Your task to perform on an android device: Open Youtube and go to the subscriptions tab Image 0: 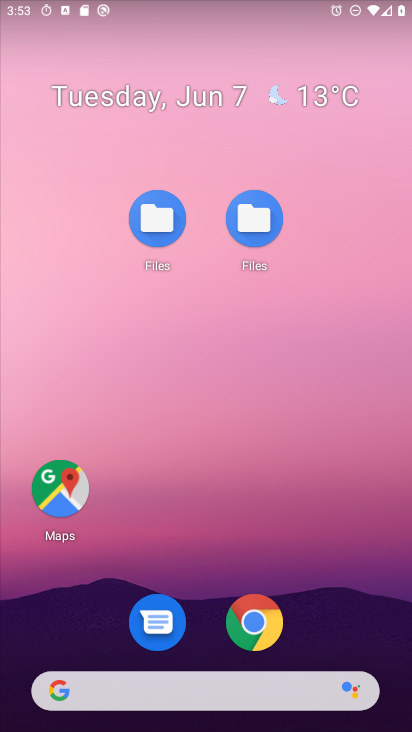
Step 0: drag from (330, 612) to (351, 77)
Your task to perform on an android device: Open Youtube and go to the subscriptions tab Image 1: 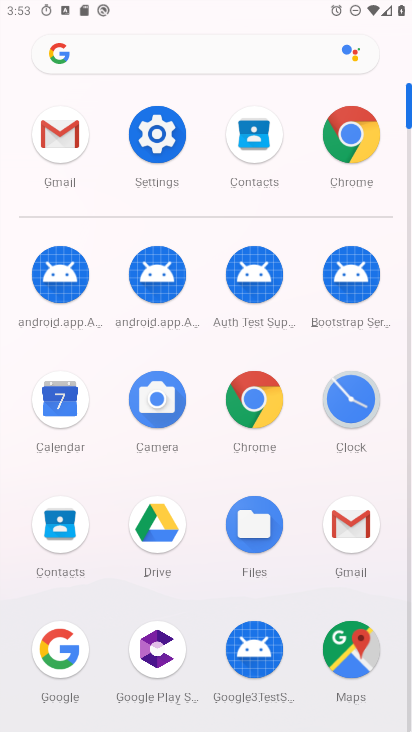
Step 1: click (403, 347)
Your task to perform on an android device: Open Youtube and go to the subscriptions tab Image 2: 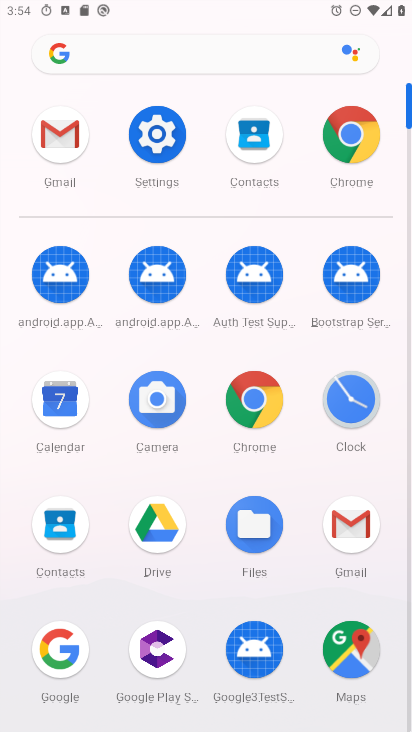
Step 2: click (409, 354)
Your task to perform on an android device: Open Youtube and go to the subscriptions tab Image 3: 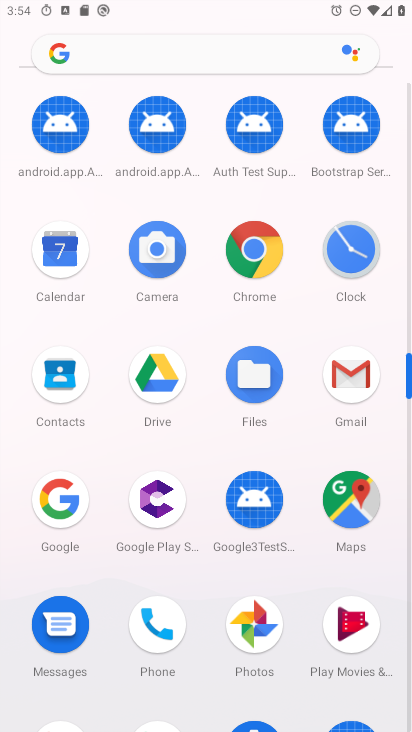
Step 3: click (405, 492)
Your task to perform on an android device: Open Youtube and go to the subscriptions tab Image 4: 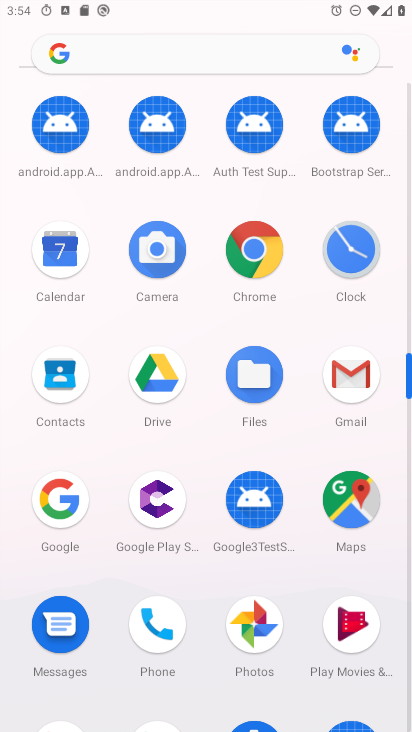
Step 4: click (405, 492)
Your task to perform on an android device: Open Youtube and go to the subscriptions tab Image 5: 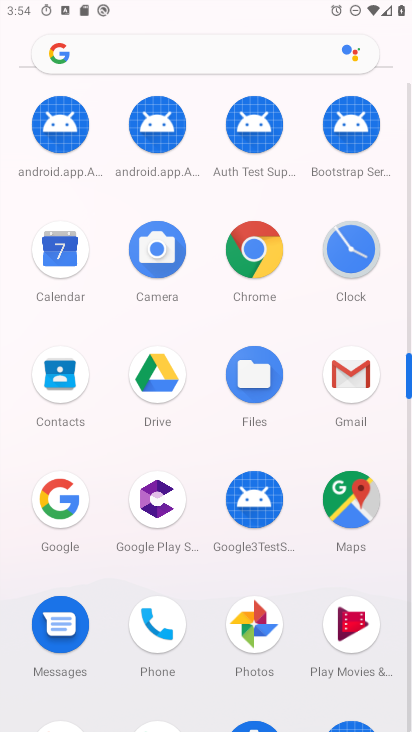
Step 5: click (405, 492)
Your task to perform on an android device: Open Youtube and go to the subscriptions tab Image 6: 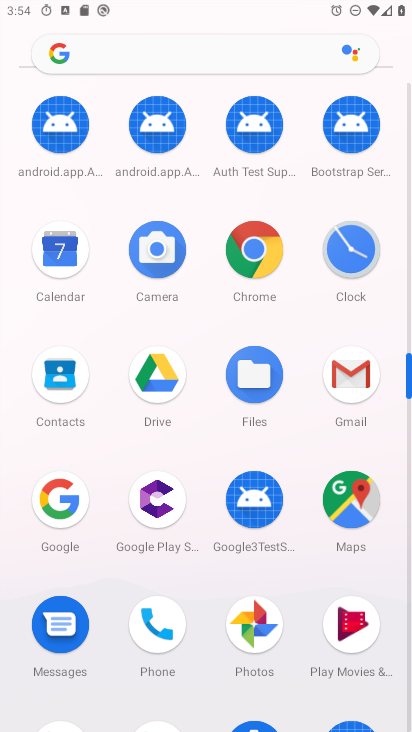
Step 6: click (405, 492)
Your task to perform on an android device: Open Youtube and go to the subscriptions tab Image 7: 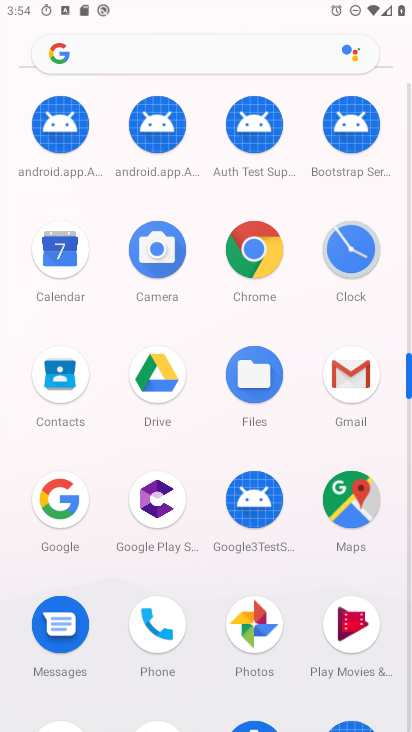
Step 7: click (406, 497)
Your task to perform on an android device: Open Youtube and go to the subscriptions tab Image 8: 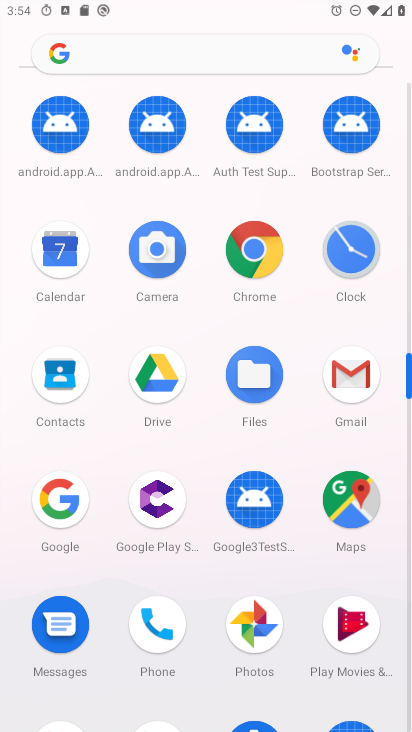
Step 8: click (406, 497)
Your task to perform on an android device: Open Youtube and go to the subscriptions tab Image 9: 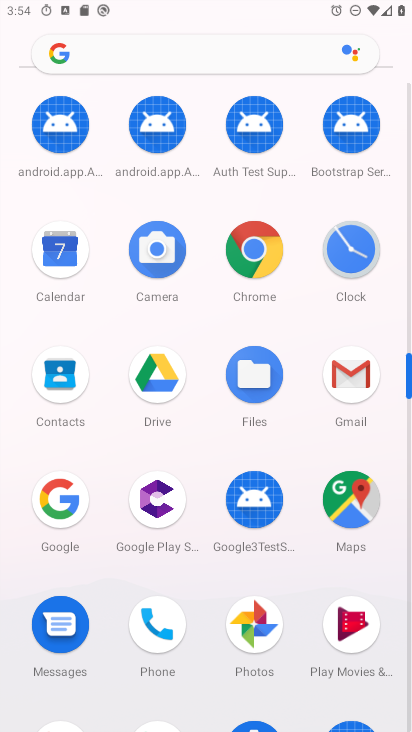
Step 9: drag from (404, 651) to (410, 437)
Your task to perform on an android device: Open Youtube and go to the subscriptions tab Image 10: 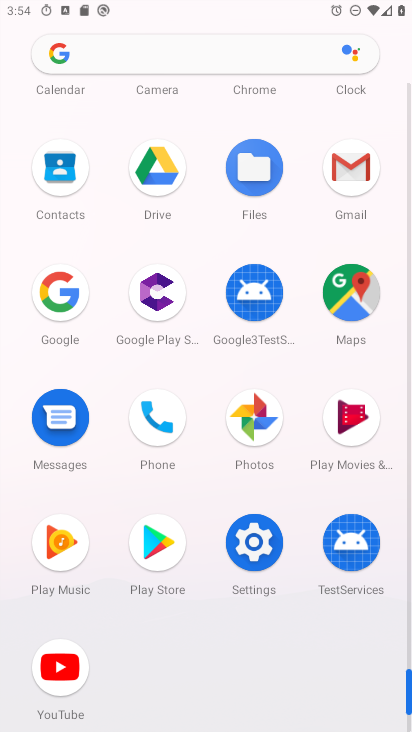
Step 10: click (61, 667)
Your task to perform on an android device: Open Youtube and go to the subscriptions tab Image 11: 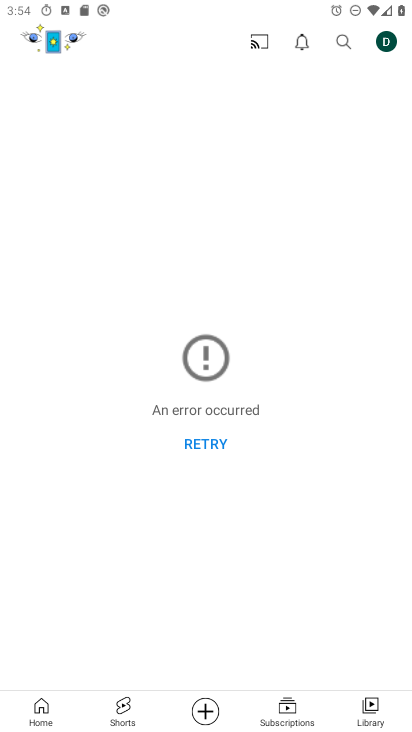
Step 11: click (291, 710)
Your task to perform on an android device: Open Youtube and go to the subscriptions tab Image 12: 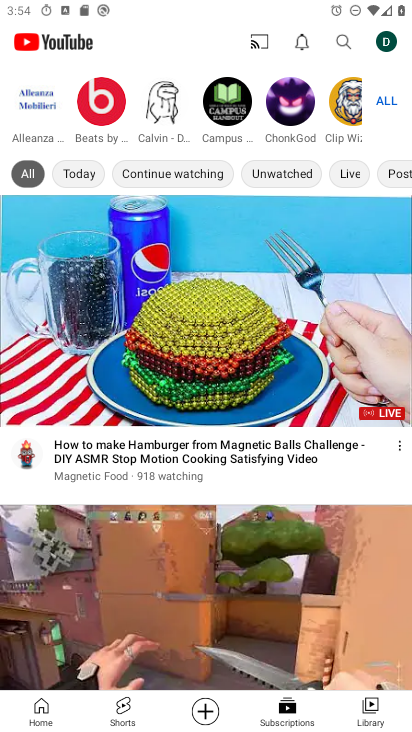
Step 12: task complete